Your task to perform on an android device: change the clock display to analog Image 0: 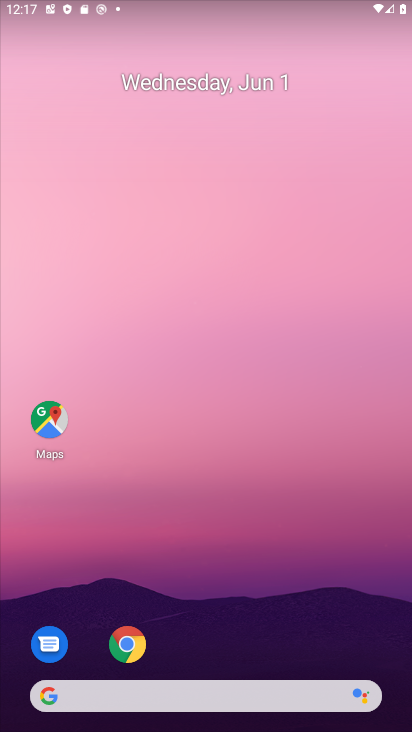
Step 0: drag from (338, 630) to (345, 123)
Your task to perform on an android device: change the clock display to analog Image 1: 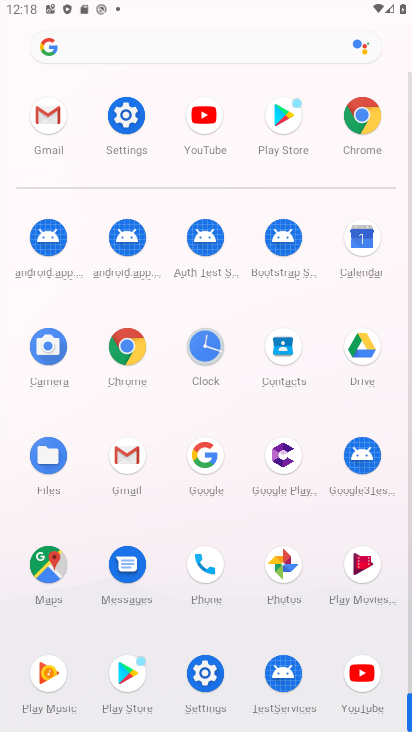
Step 1: click (209, 672)
Your task to perform on an android device: change the clock display to analog Image 2: 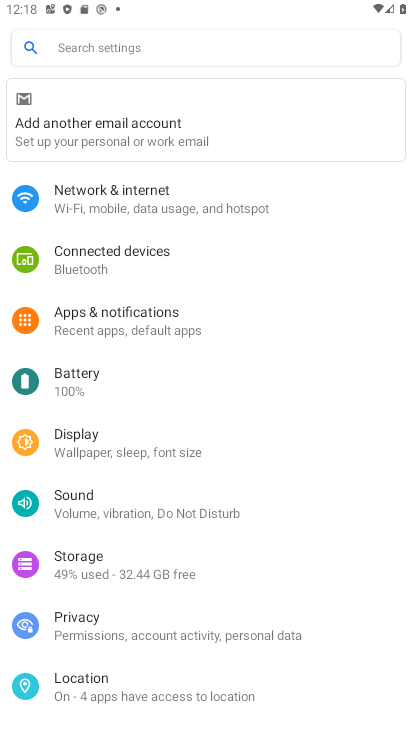
Step 2: drag from (227, 635) to (245, 363)
Your task to perform on an android device: change the clock display to analog Image 3: 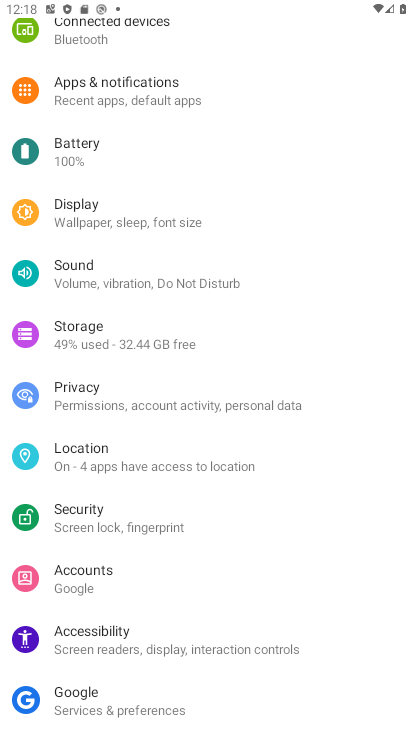
Step 3: drag from (264, 182) to (245, 618)
Your task to perform on an android device: change the clock display to analog Image 4: 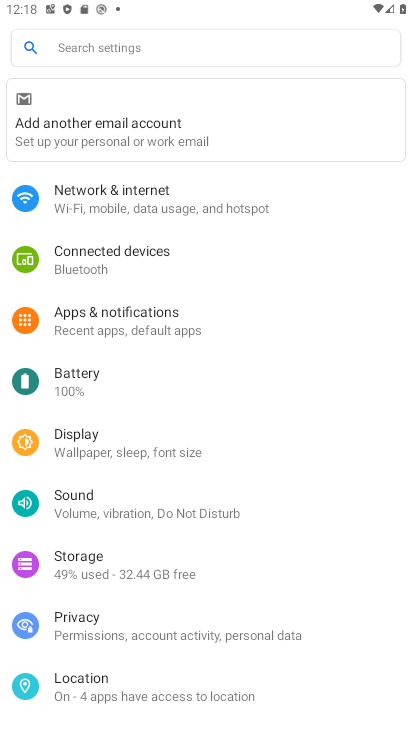
Step 4: press home button
Your task to perform on an android device: change the clock display to analog Image 5: 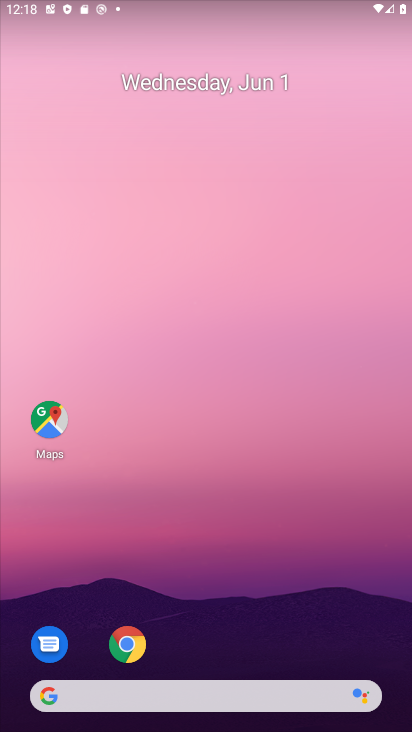
Step 5: drag from (360, 609) to (319, 140)
Your task to perform on an android device: change the clock display to analog Image 6: 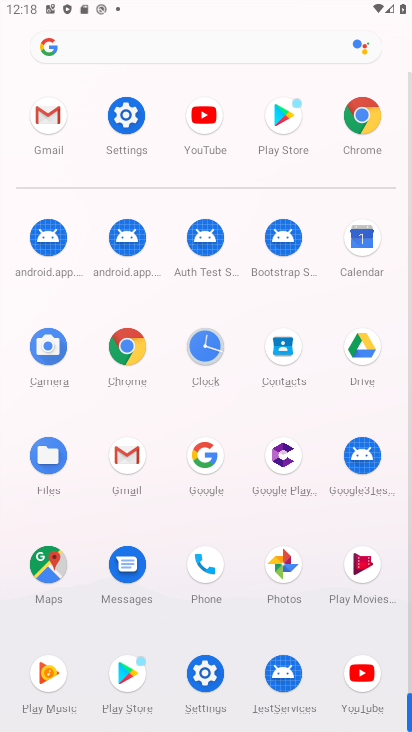
Step 6: click (203, 355)
Your task to perform on an android device: change the clock display to analog Image 7: 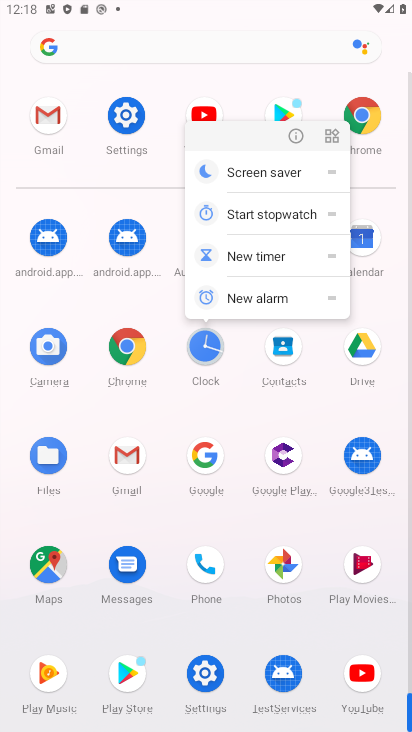
Step 7: click (203, 355)
Your task to perform on an android device: change the clock display to analog Image 8: 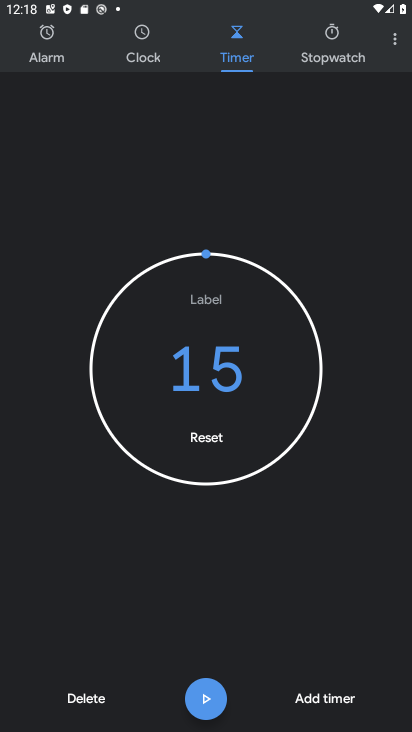
Step 8: click (394, 39)
Your task to perform on an android device: change the clock display to analog Image 9: 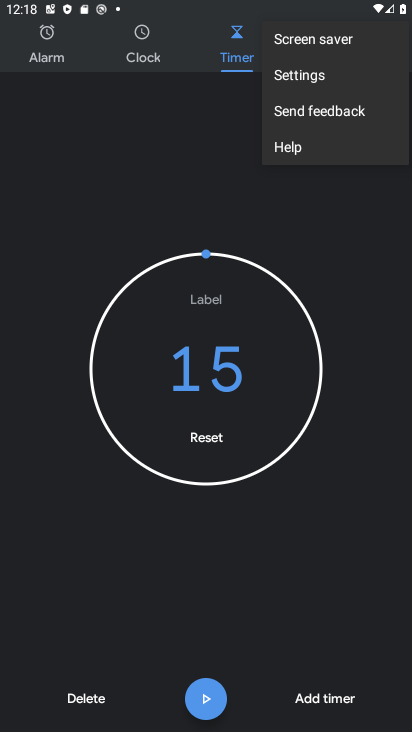
Step 9: click (300, 76)
Your task to perform on an android device: change the clock display to analog Image 10: 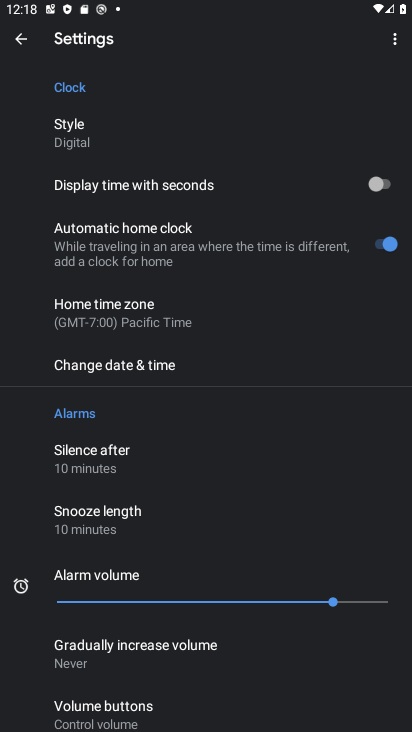
Step 10: click (205, 131)
Your task to perform on an android device: change the clock display to analog Image 11: 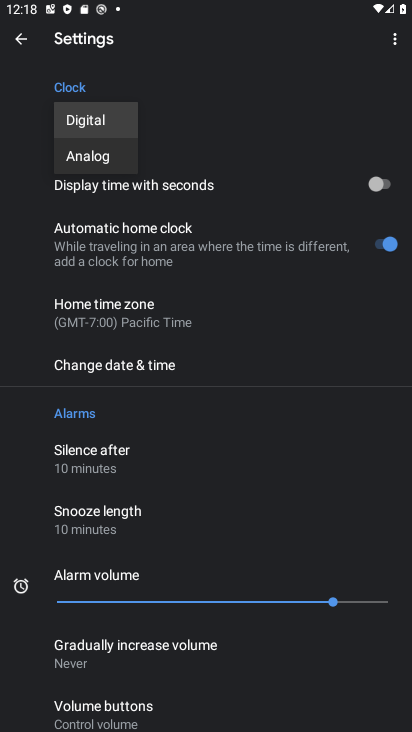
Step 11: click (110, 166)
Your task to perform on an android device: change the clock display to analog Image 12: 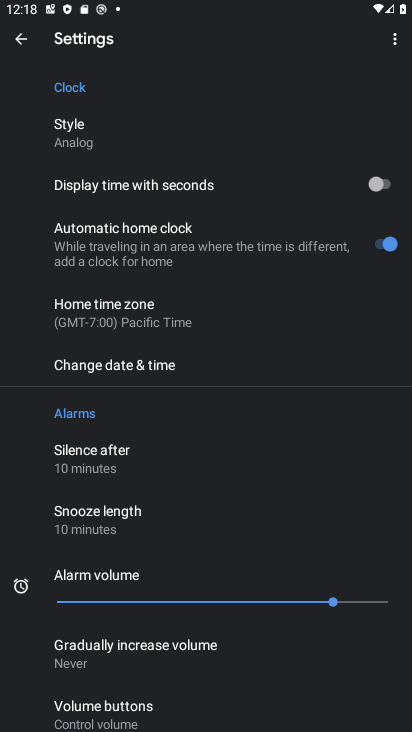
Step 12: task complete